Your task to perform on an android device: turn off notifications in google photos Image 0: 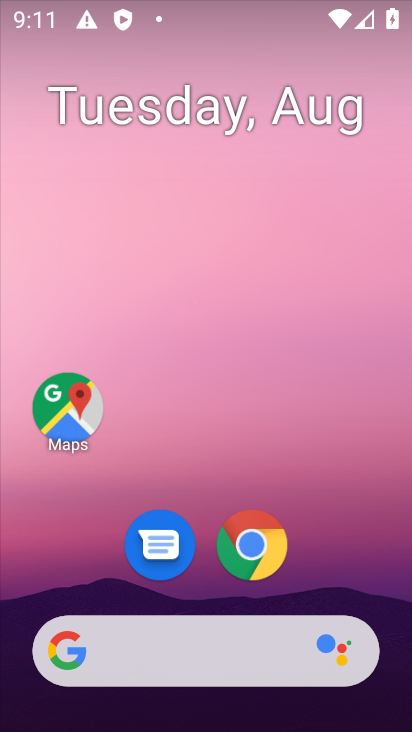
Step 0: press home button
Your task to perform on an android device: turn off notifications in google photos Image 1: 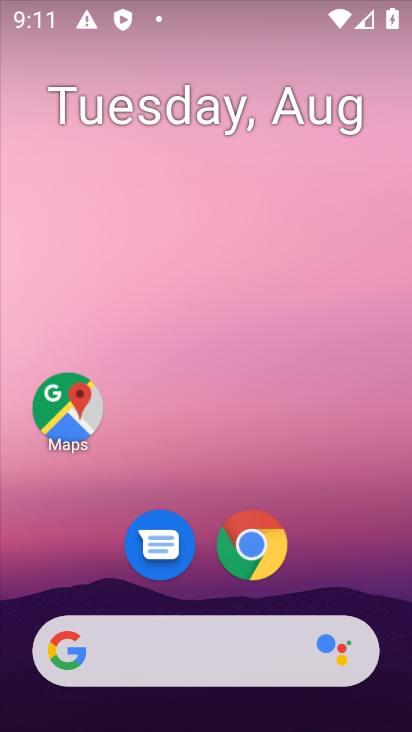
Step 1: drag from (41, 550) to (182, 86)
Your task to perform on an android device: turn off notifications in google photos Image 2: 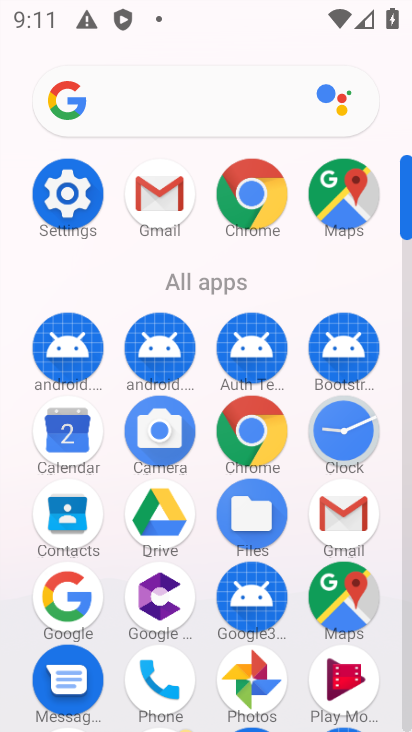
Step 2: click (244, 184)
Your task to perform on an android device: turn off notifications in google photos Image 3: 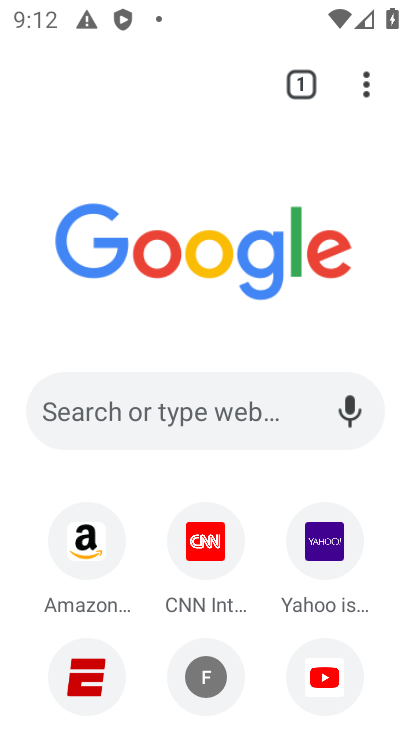
Step 3: press home button
Your task to perform on an android device: turn off notifications in google photos Image 4: 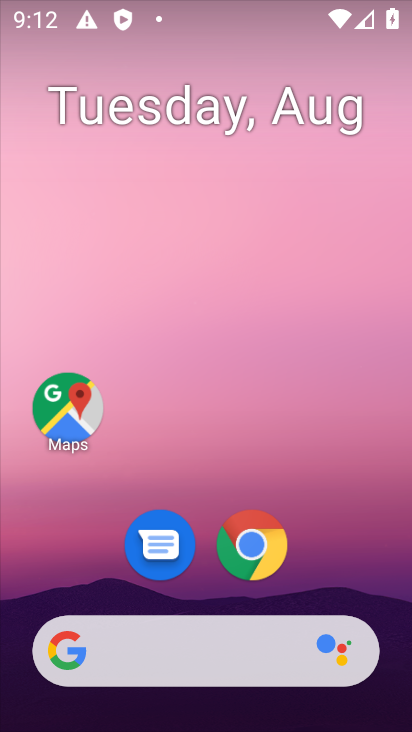
Step 4: drag from (59, 500) to (195, 101)
Your task to perform on an android device: turn off notifications in google photos Image 5: 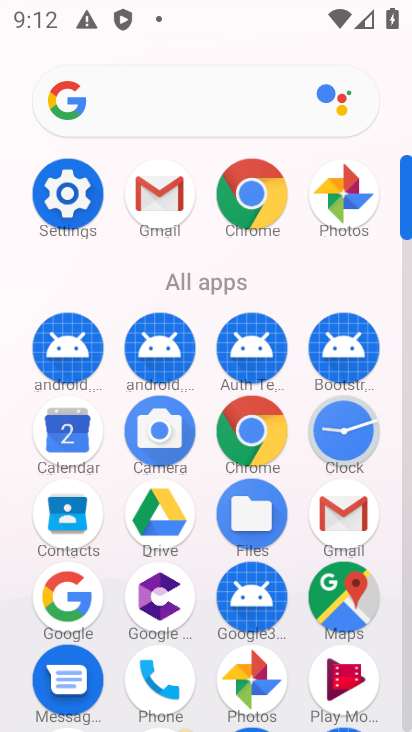
Step 5: click (333, 185)
Your task to perform on an android device: turn off notifications in google photos Image 6: 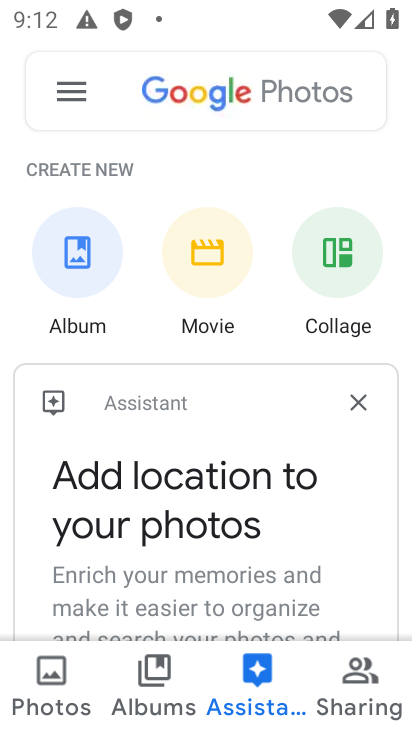
Step 6: click (364, 397)
Your task to perform on an android device: turn off notifications in google photos Image 7: 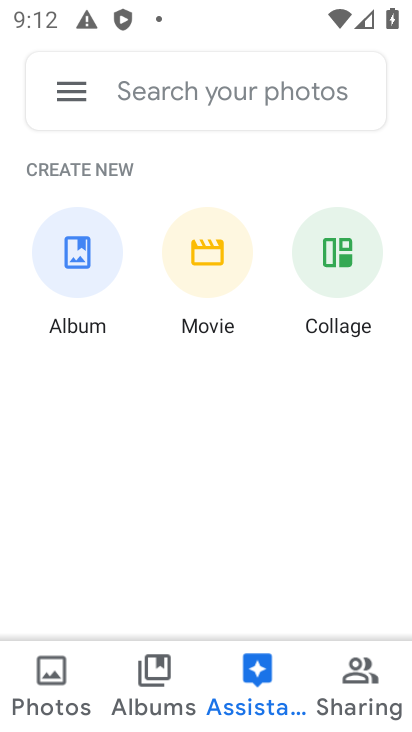
Step 7: click (67, 97)
Your task to perform on an android device: turn off notifications in google photos Image 8: 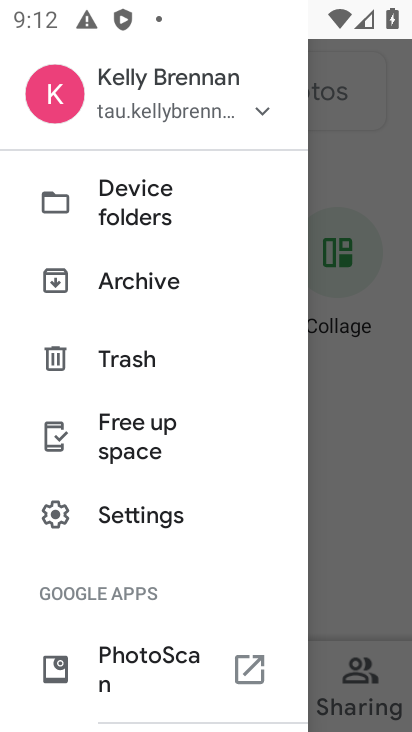
Step 8: click (128, 511)
Your task to perform on an android device: turn off notifications in google photos Image 9: 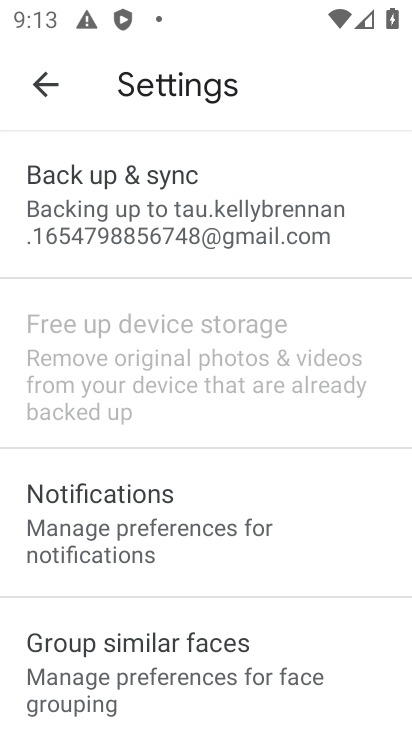
Step 9: drag from (60, 456) to (173, 208)
Your task to perform on an android device: turn off notifications in google photos Image 10: 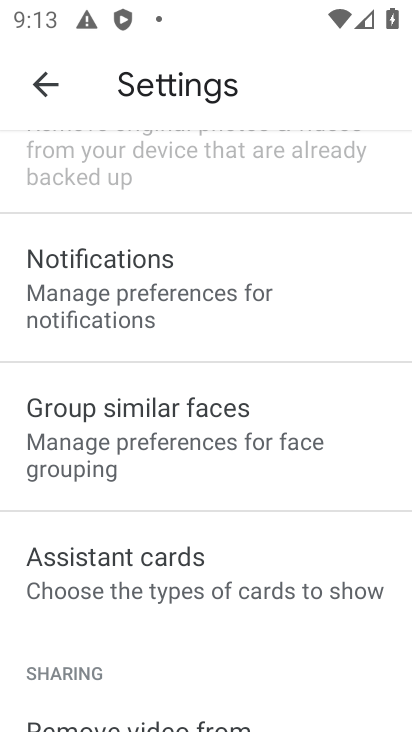
Step 10: click (164, 291)
Your task to perform on an android device: turn off notifications in google photos Image 11: 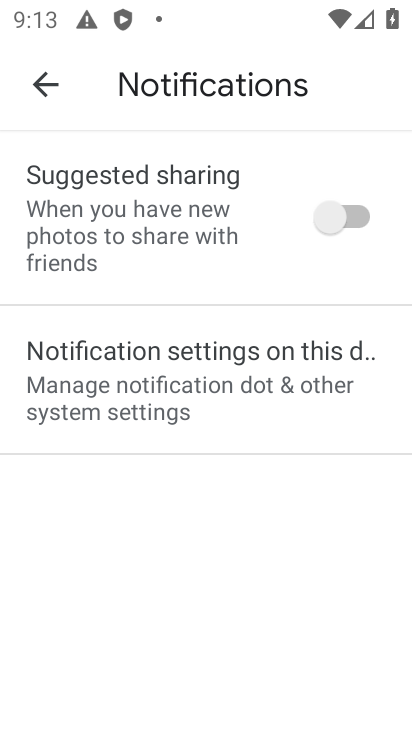
Step 11: task complete